Your task to perform on an android device: check out phone information Image 0: 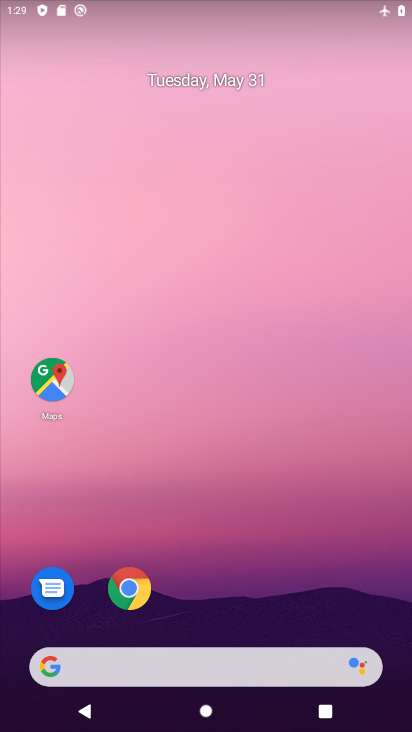
Step 0: drag from (356, 580) to (352, 124)
Your task to perform on an android device: check out phone information Image 1: 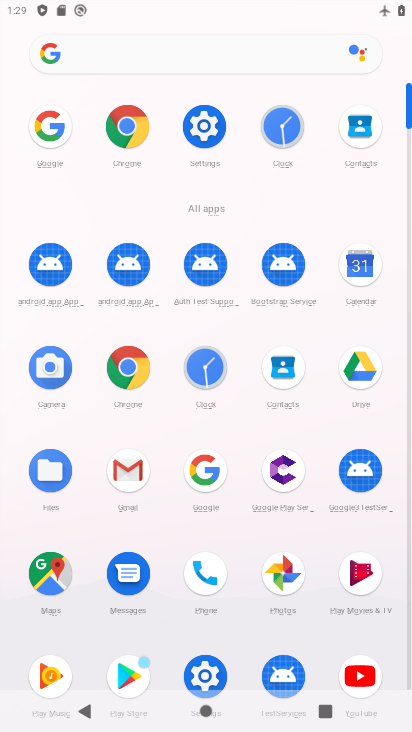
Step 1: click (203, 585)
Your task to perform on an android device: check out phone information Image 2: 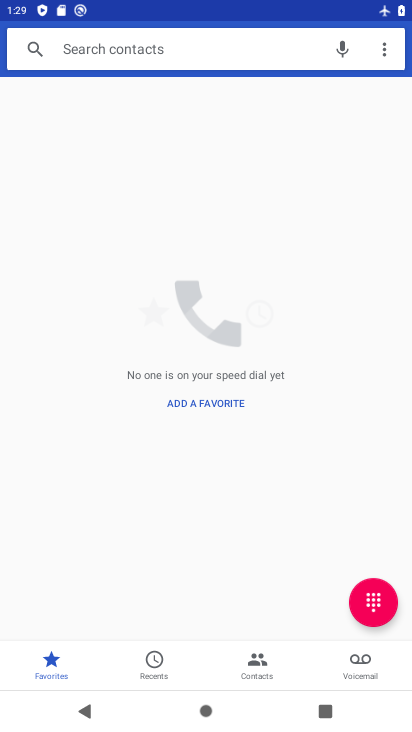
Step 2: click (155, 673)
Your task to perform on an android device: check out phone information Image 3: 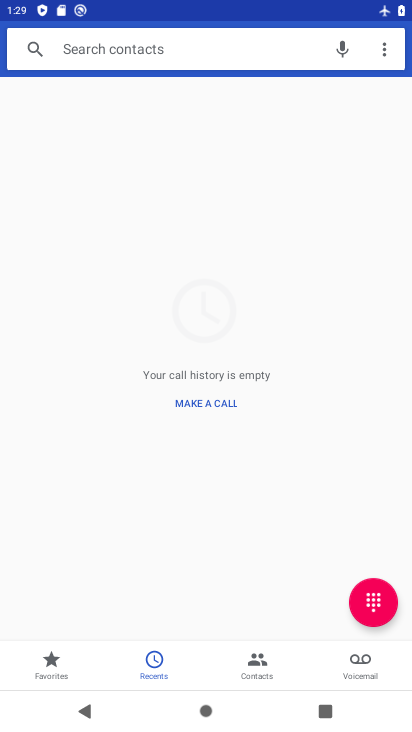
Step 3: task complete